Your task to perform on an android device: Go to Yahoo.com Image 0: 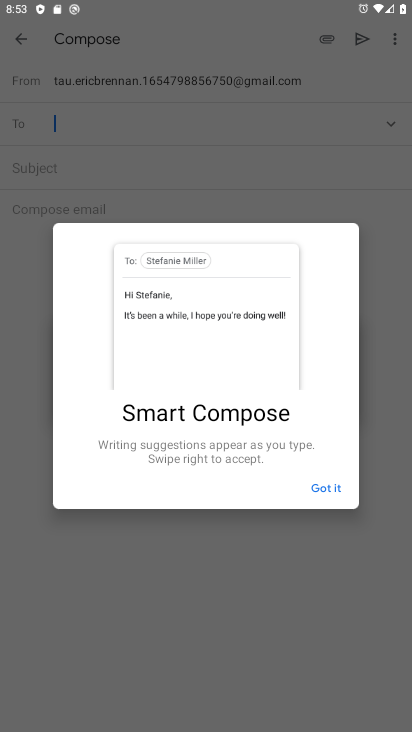
Step 0: press home button
Your task to perform on an android device: Go to Yahoo.com Image 1: 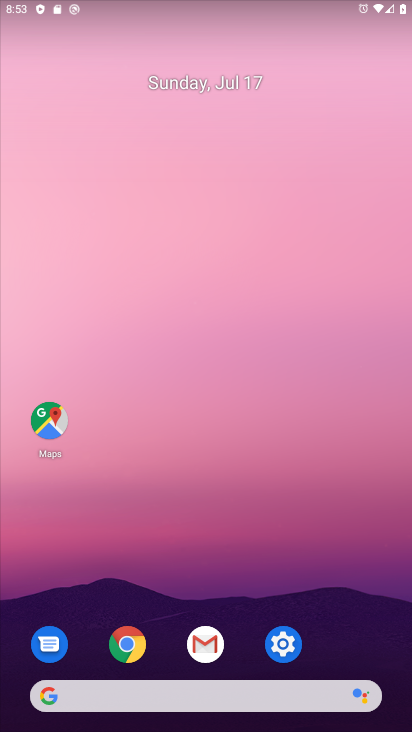
Step 1: click (130, 632)
Your task to perform on an android device: Go to Yahoo.com Image 2: 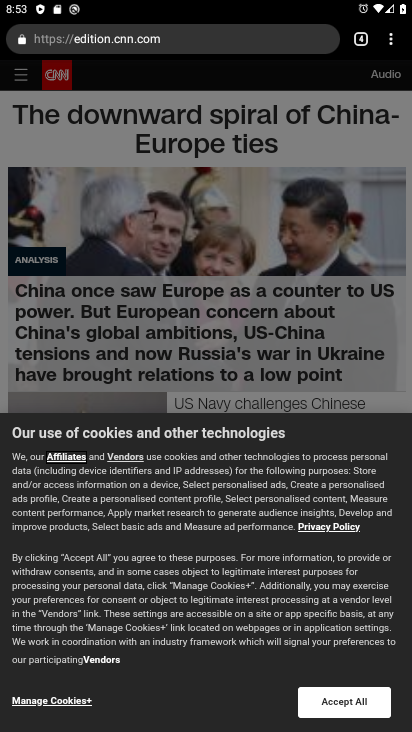
Step 2: click (365, 35)
Your task to perform on an android device: Go to Yahoo.com Image 3: 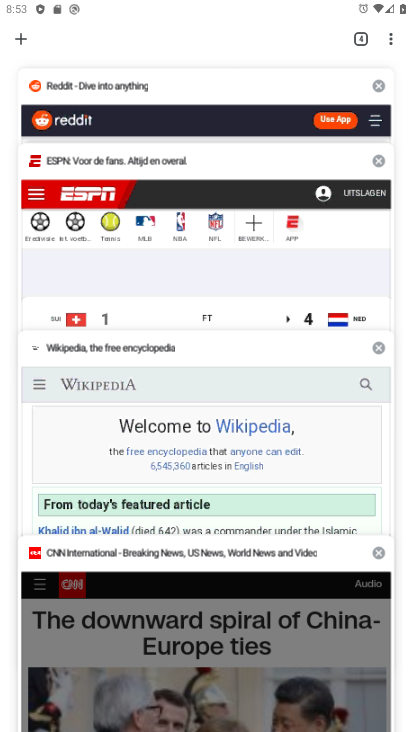
Step 3: click (20, 42)
Your task to perform on an android device: Go to Yahoo.com Image 4: 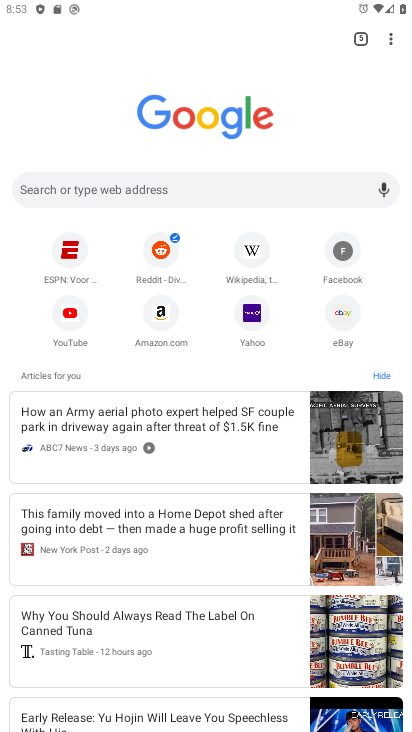
Step 4: click (252, 320)
Your task to perform on an android device: Go to Yahoo.com Image 5: 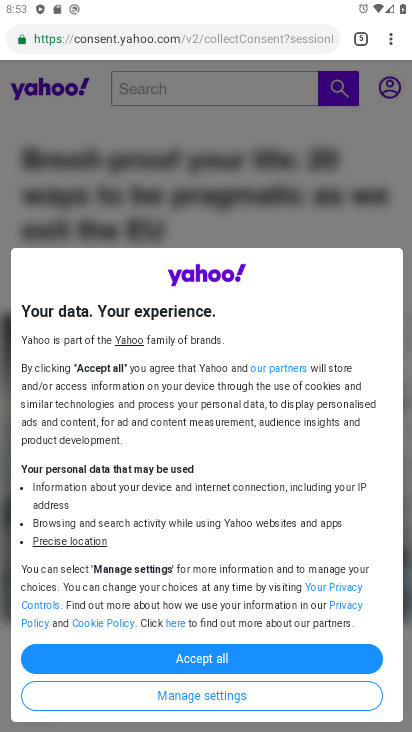
Step 5: click (254, 656)
Your task to perform on an android device: Go to Yahoo.com Image 6: 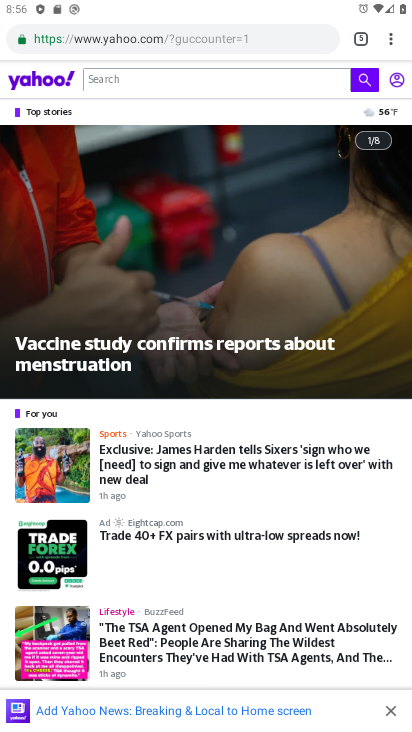
Step 6: task complete